Your task to perform on an android device: What is the news today? Image 0: 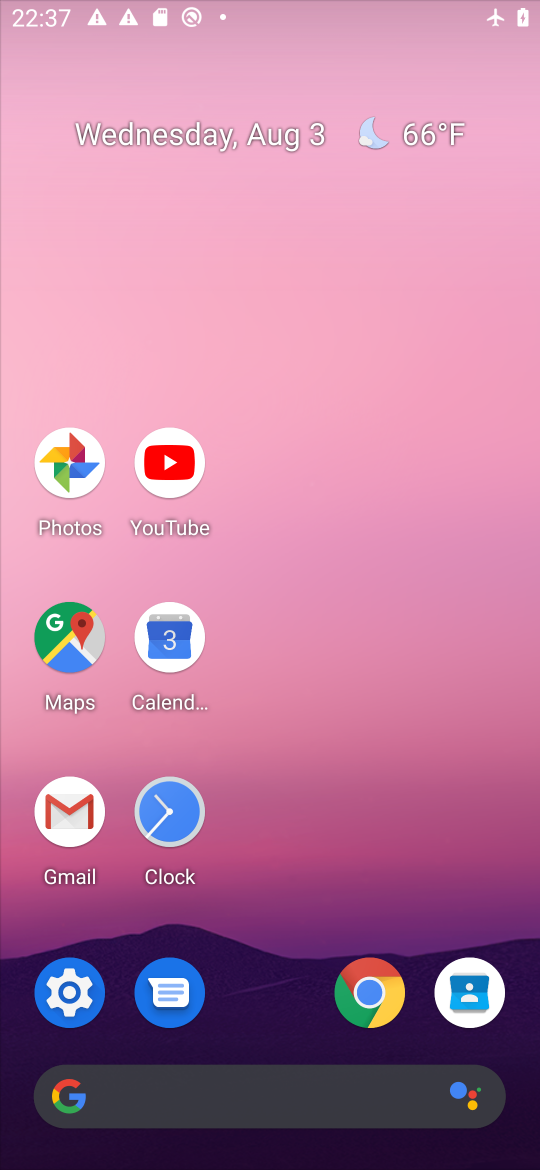
Step 0: press home button
Your task to perform on an android device: What is the news today? Image 1: 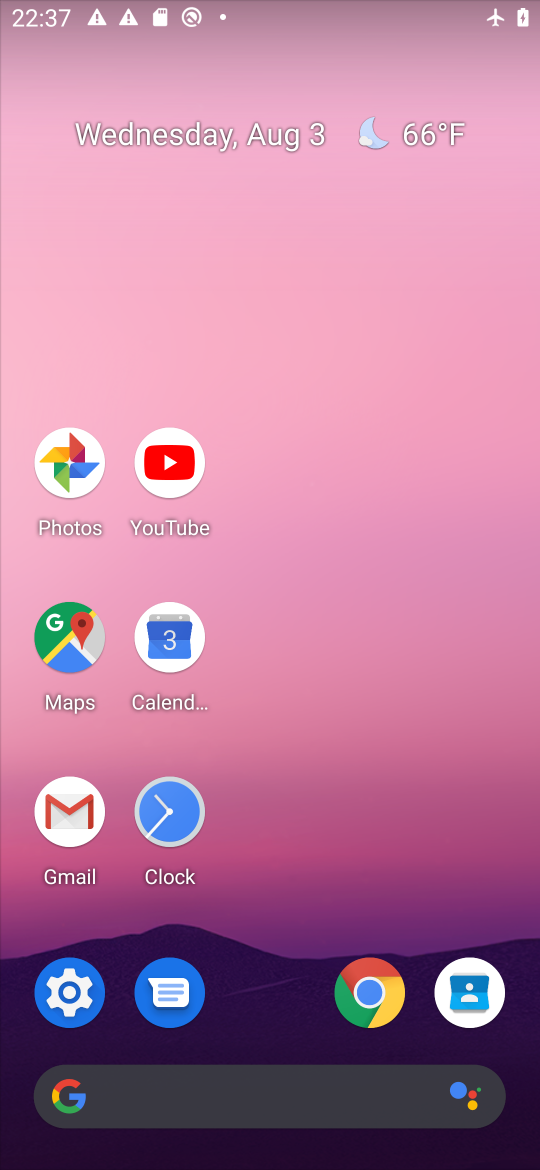
Step 1: click (68, 1100)
Your task to perform on an android device: What is the news today? Image 2: 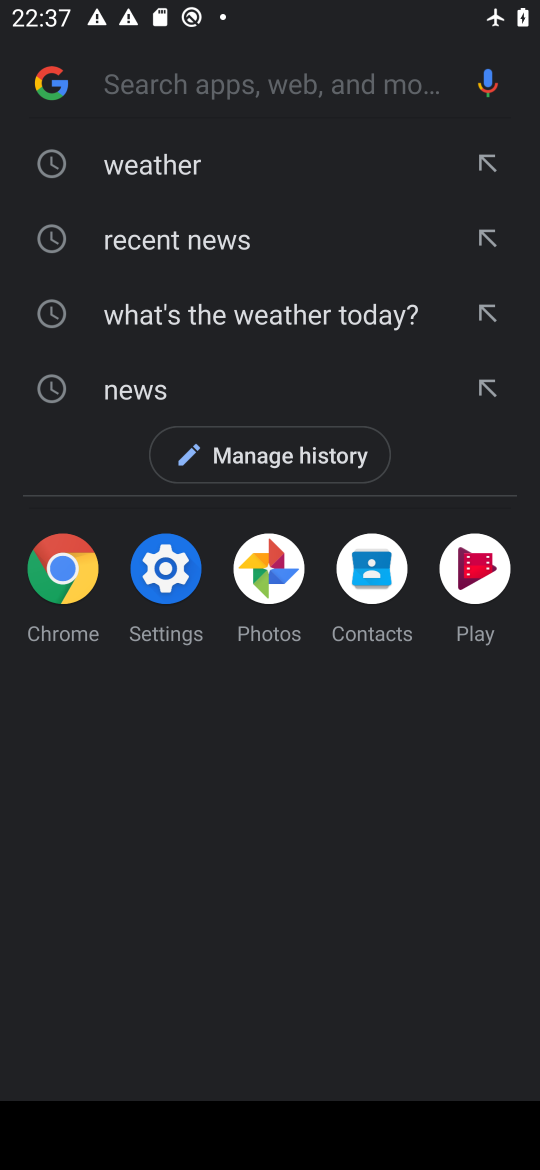
Step 2: click (59, 77)
Your task to perform on an android device: What is the news today? Image 3: 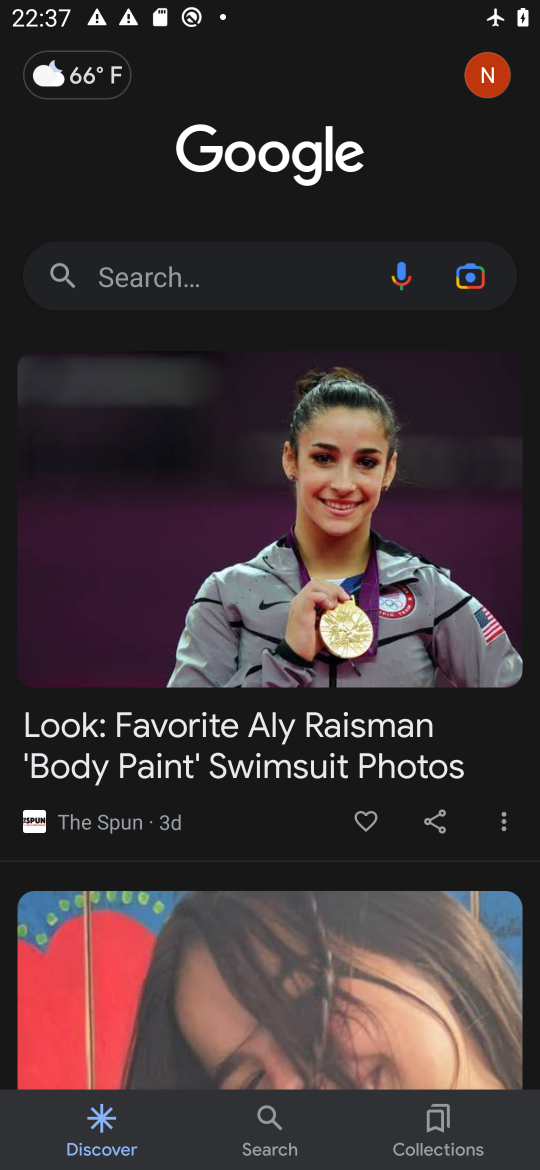
Step 3: task complete